Your task to perform on an android device: Do I have any events this weekend? Image 0: 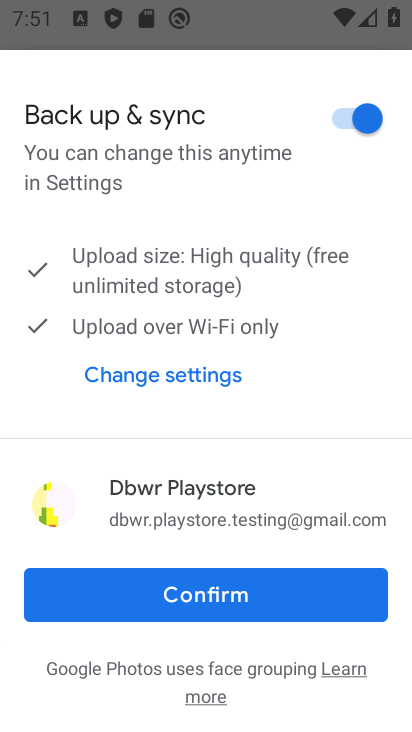
Step 0: press home button
Your task to perform on an android device: Do I have any events this weekend? Image 1: 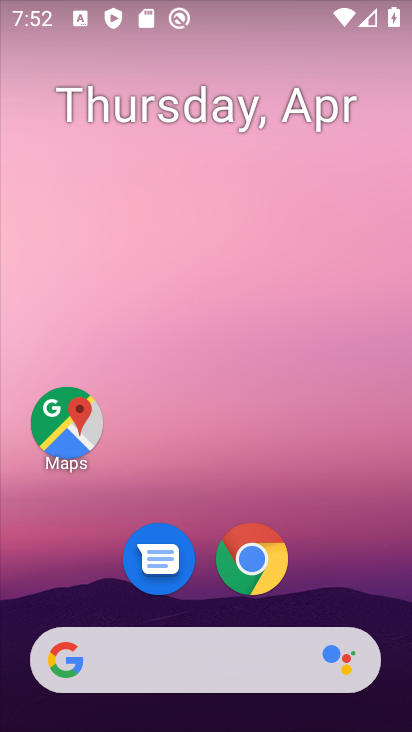
Step 1: drag from (191, 723) to (183, 10)
Your task to perform on an android device: Do I have any events this weekend? Image 2: 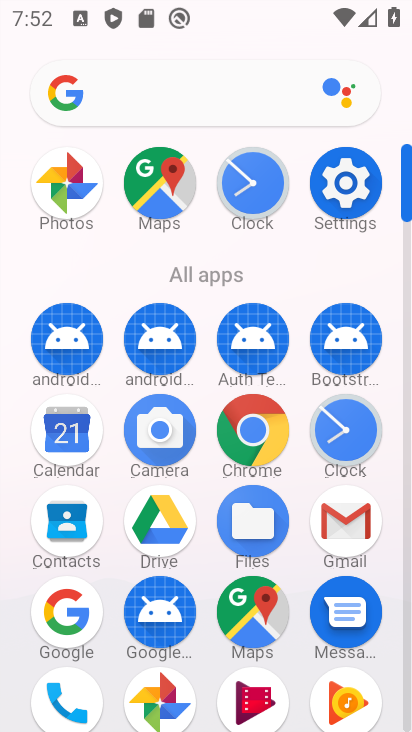
Step 2: click (36, 432)
Your task to perform on an android device: Do I have any events this weekend? Image 3: 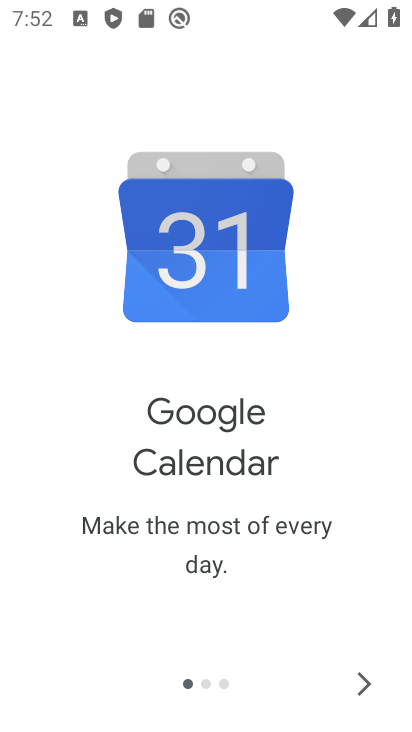
Step 3: click (366, 681)
Your task to perform on an android device: Do I have any events this weekend? Image 4: 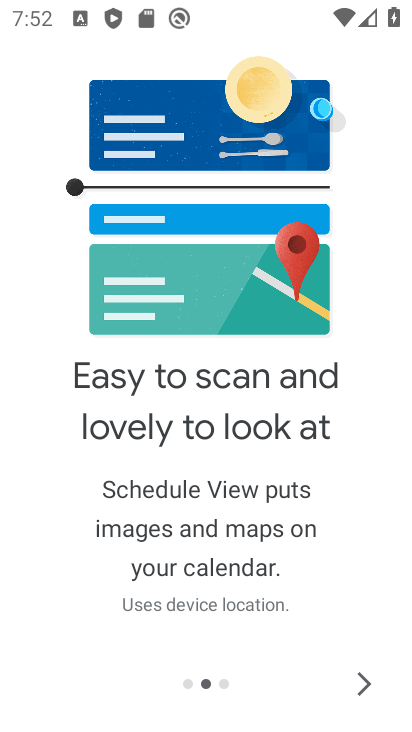
Step 4: click (366, 681)
Your task to perform on an android device: Do I have any events this weekend? Image 5: 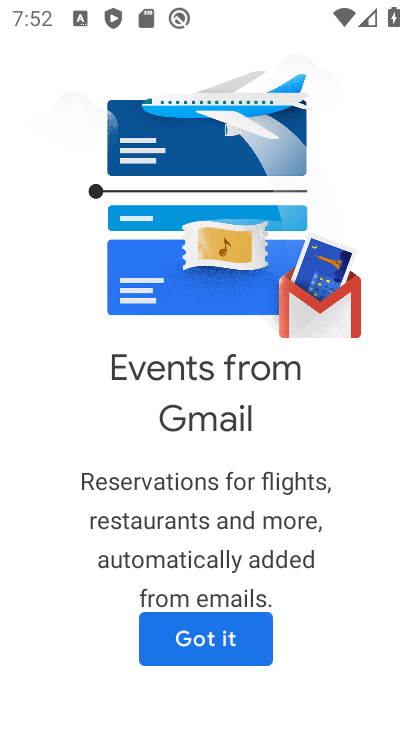
Step 5: click (196, 646)
Your task to perform on an android device: Do I have any events this weekend? Image 6: 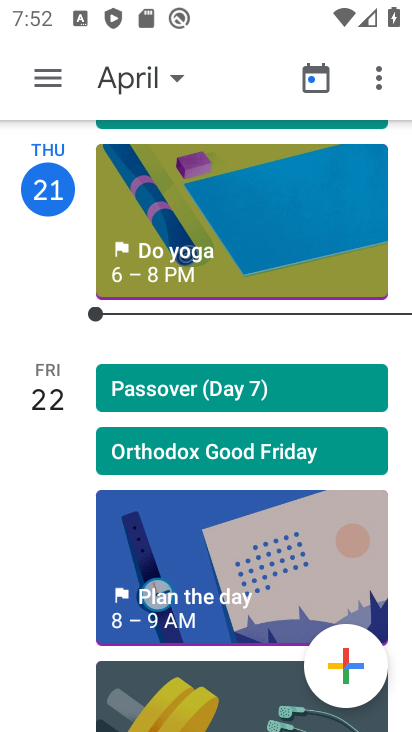
Step 6: task complete